Your task to perform on an android device: toggle javascript in the chrome app Image 0: 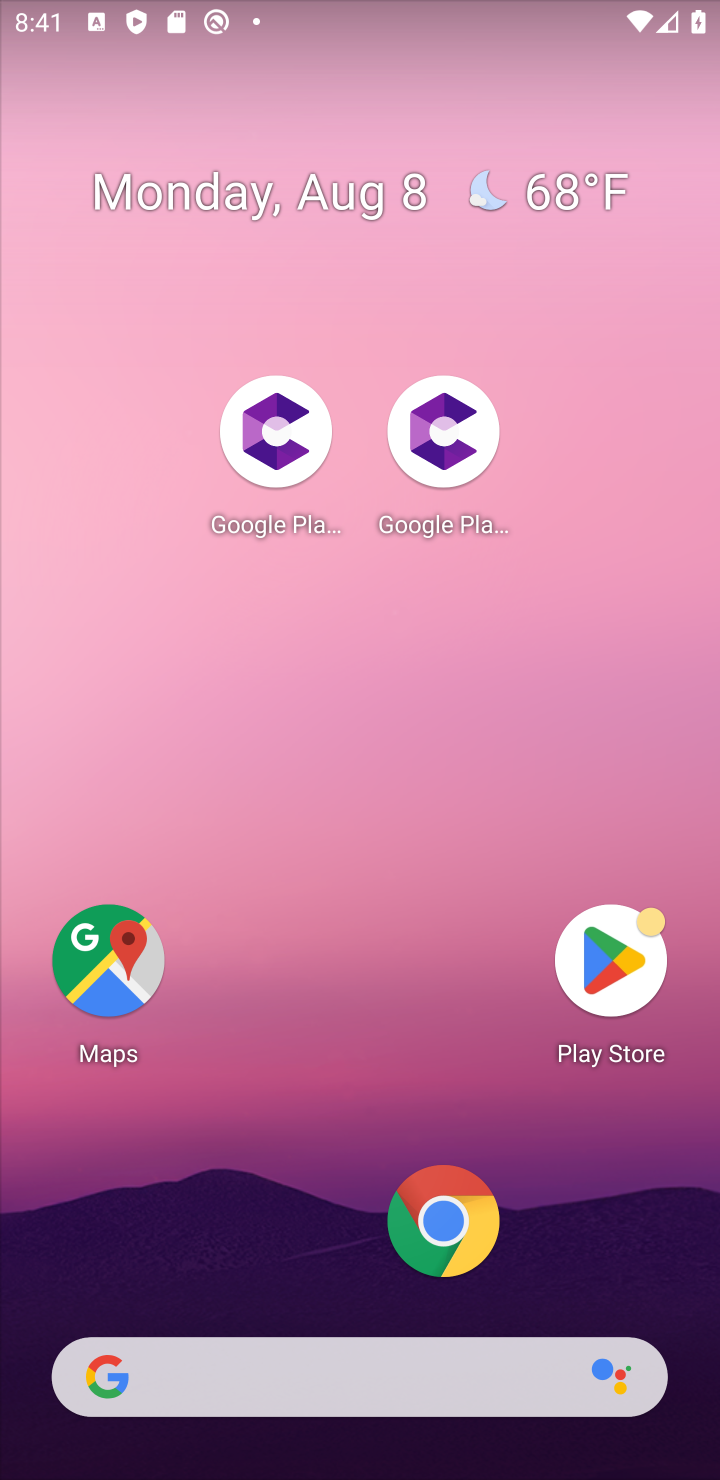
Step 0: click (400, 1249)
Your task to perform on an android device: toggle javascript in the chrome app Image 1: 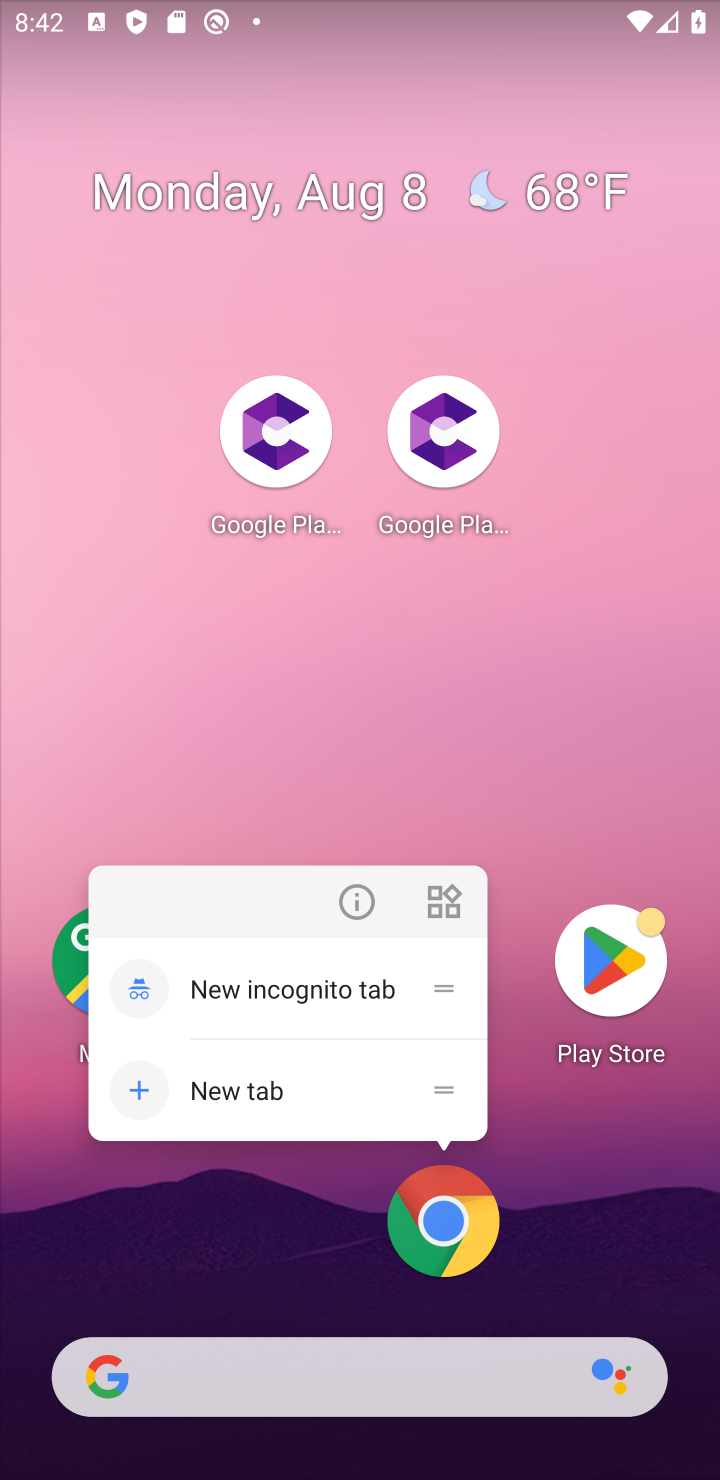
Step 1: click (464, 1225)
Your task to perform on an android device: toggle javascript in the chrome app Image 2: 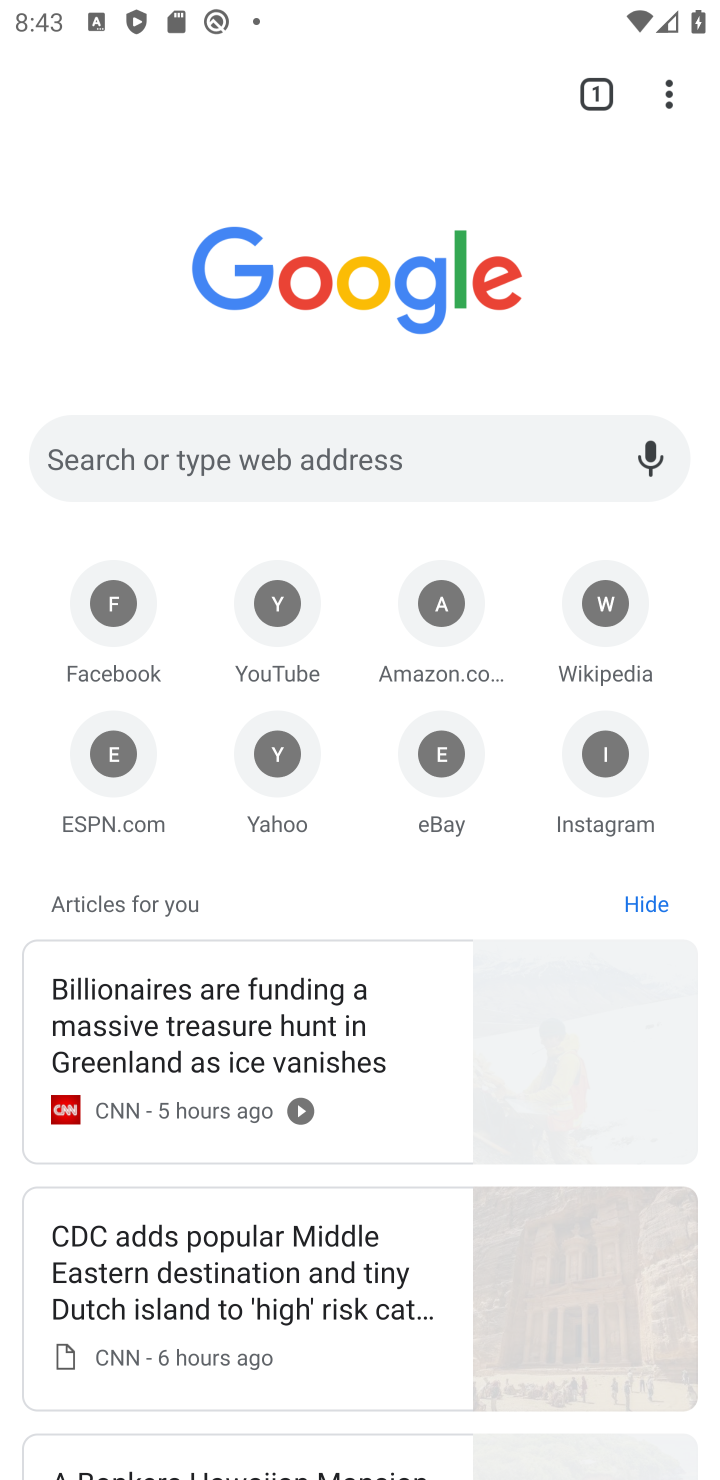
Step 2: click (678, 93)
Your task to perform on an android device: toggle javascript in the chrome app Image 3: 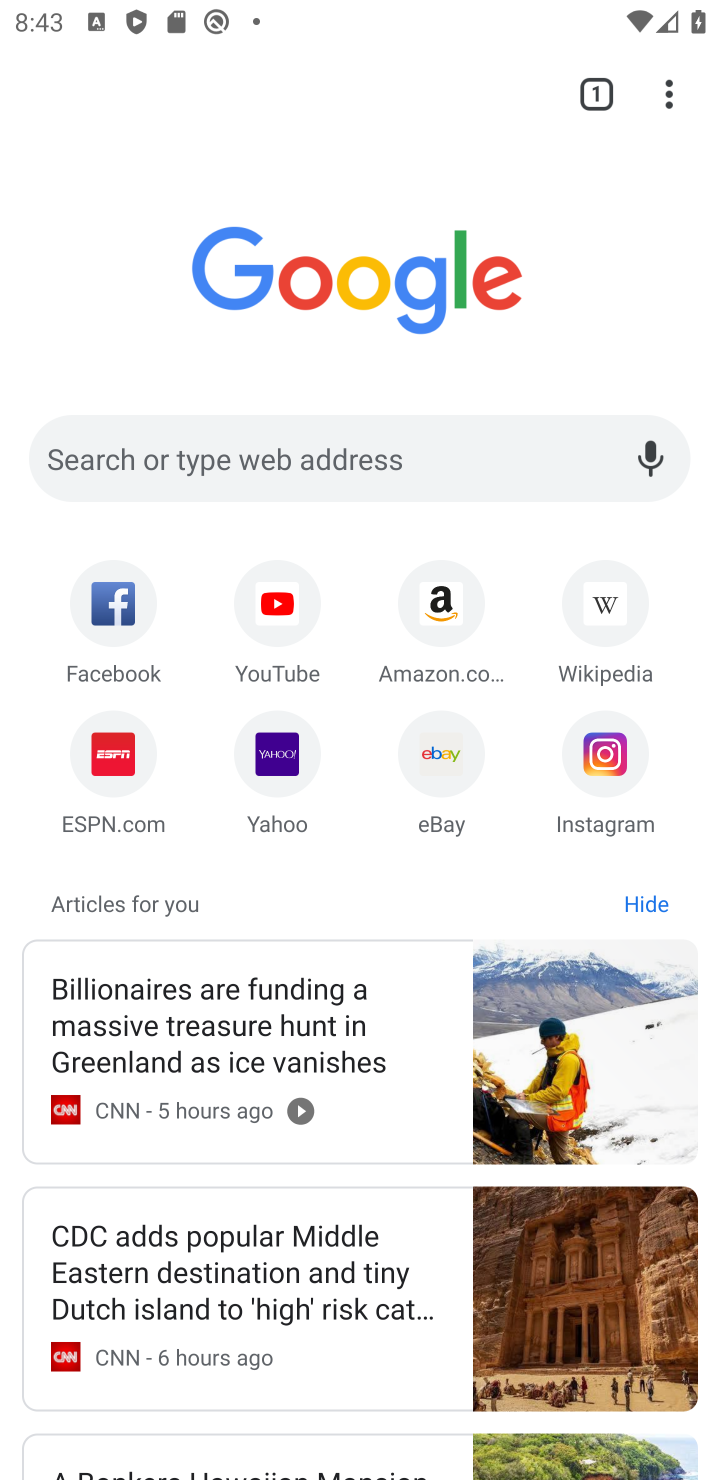
Step 3: click (678, 93)
Your task to perform on an android device: toggle javascript in the chrome app Image 4: 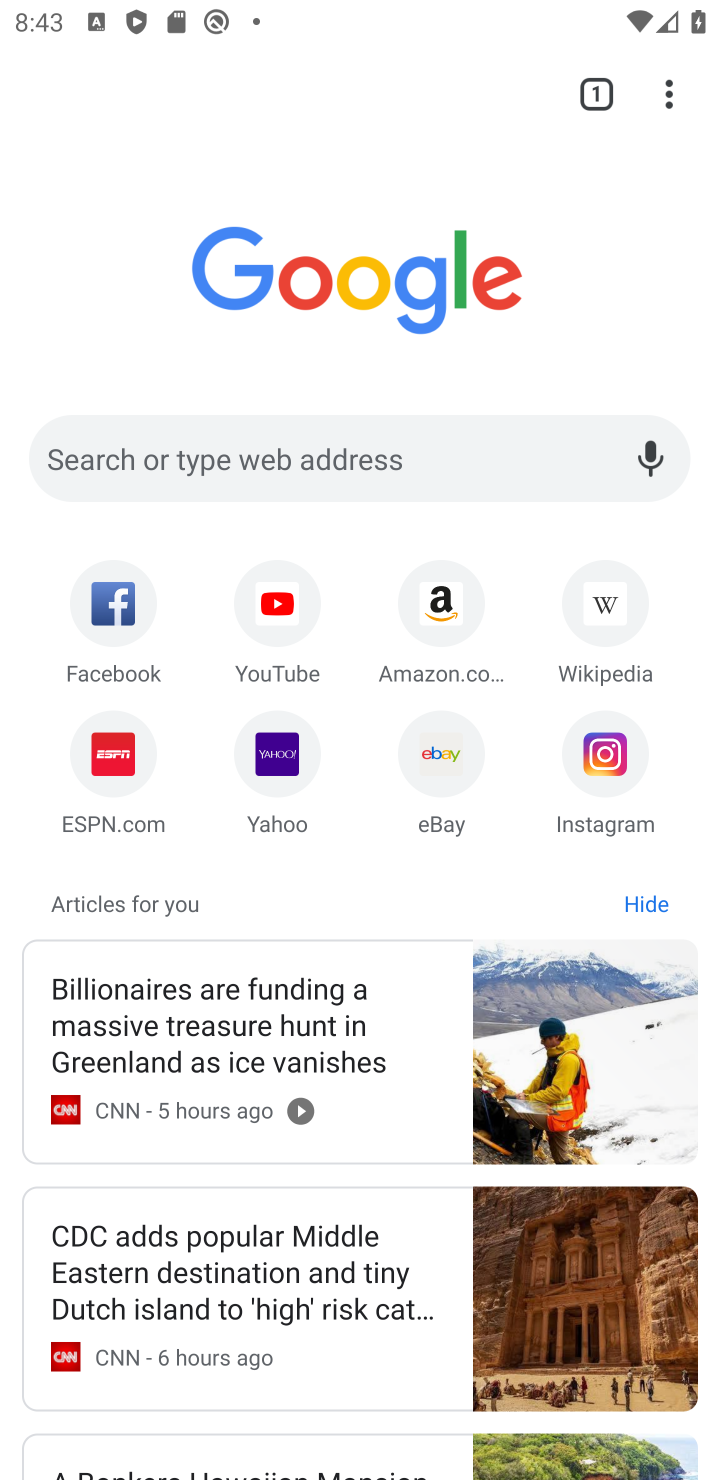
Step 4: click (678, 93)
Your task to perform on an android device: toggle javascript in the chrome app Image 5: 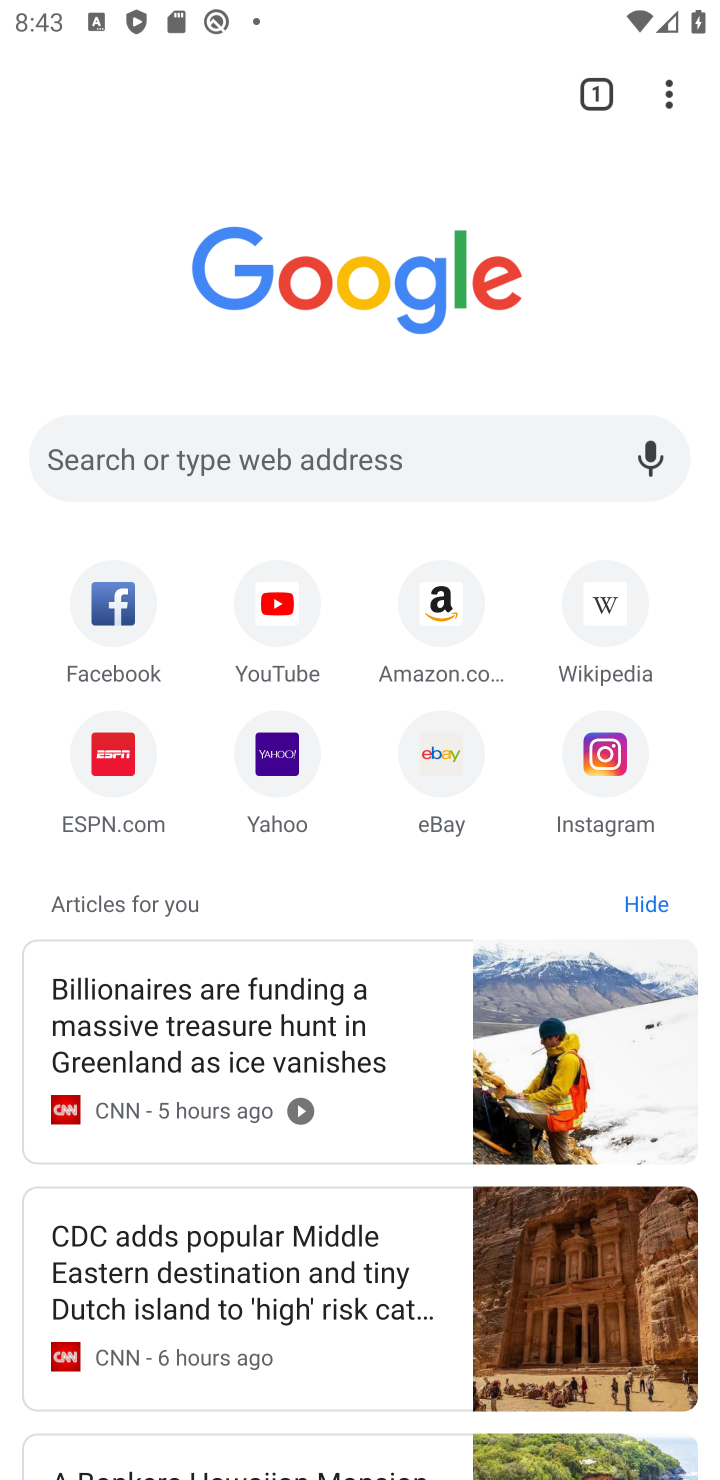
Step 5: click (678, 93)
Your task to perform on an android device: toggle javascript in the chrome app Image 6: 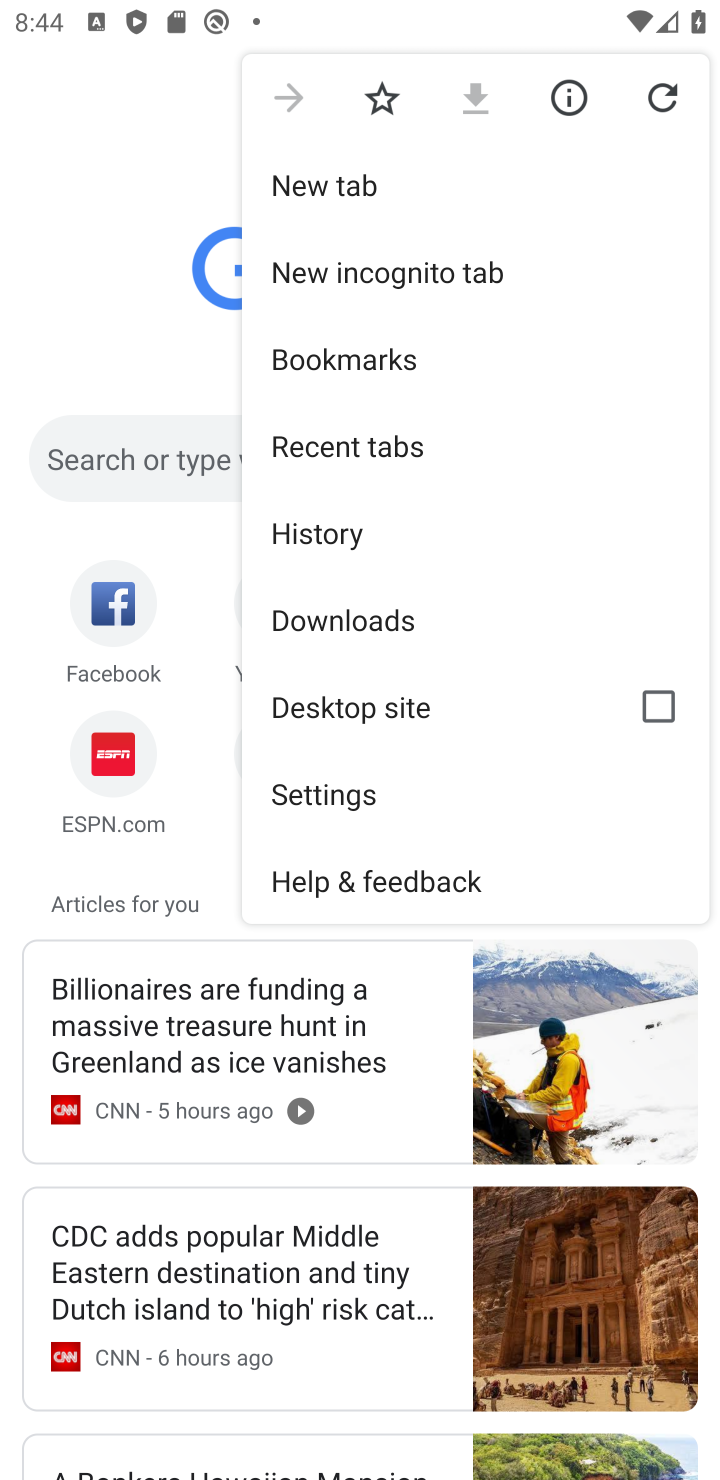
Step 6: click (408, 800)
Your task to perform on an android device: toggle javascript in the chrome app Image 7: 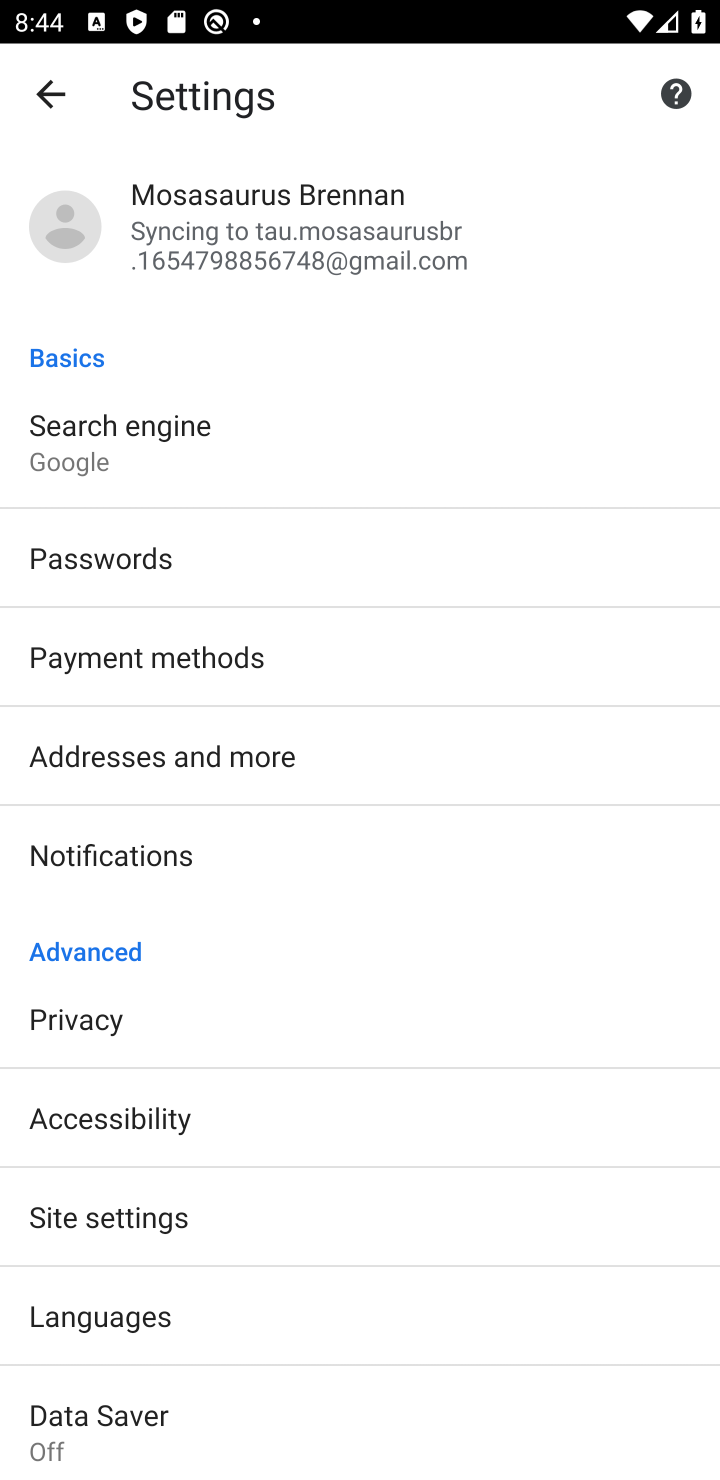
Step 7: click (158, 1192)
Your task to perform on an android device: toggle javascript in the chrome app Image 8: 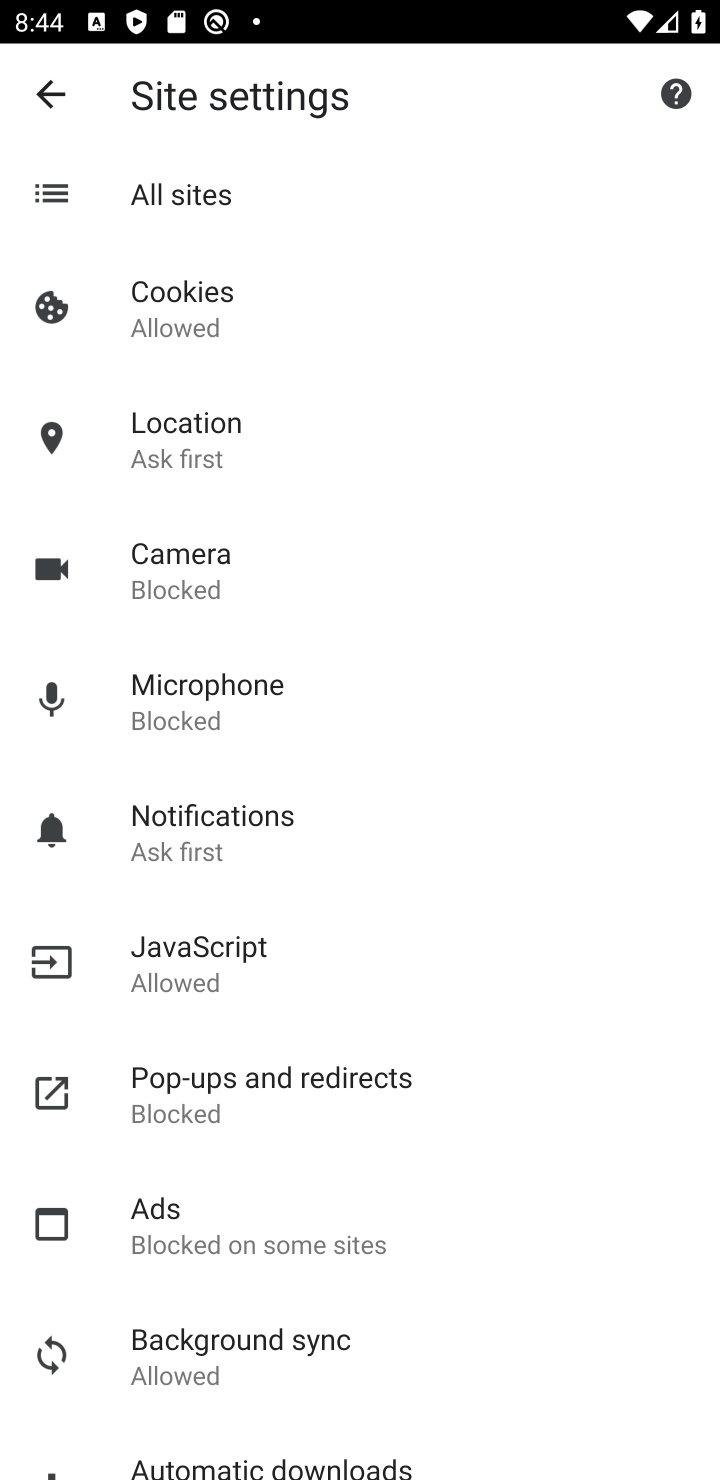
Step 8: click (210, 975)
Your task to perform on an android device: toggle javascript in the chrome app Image 9: 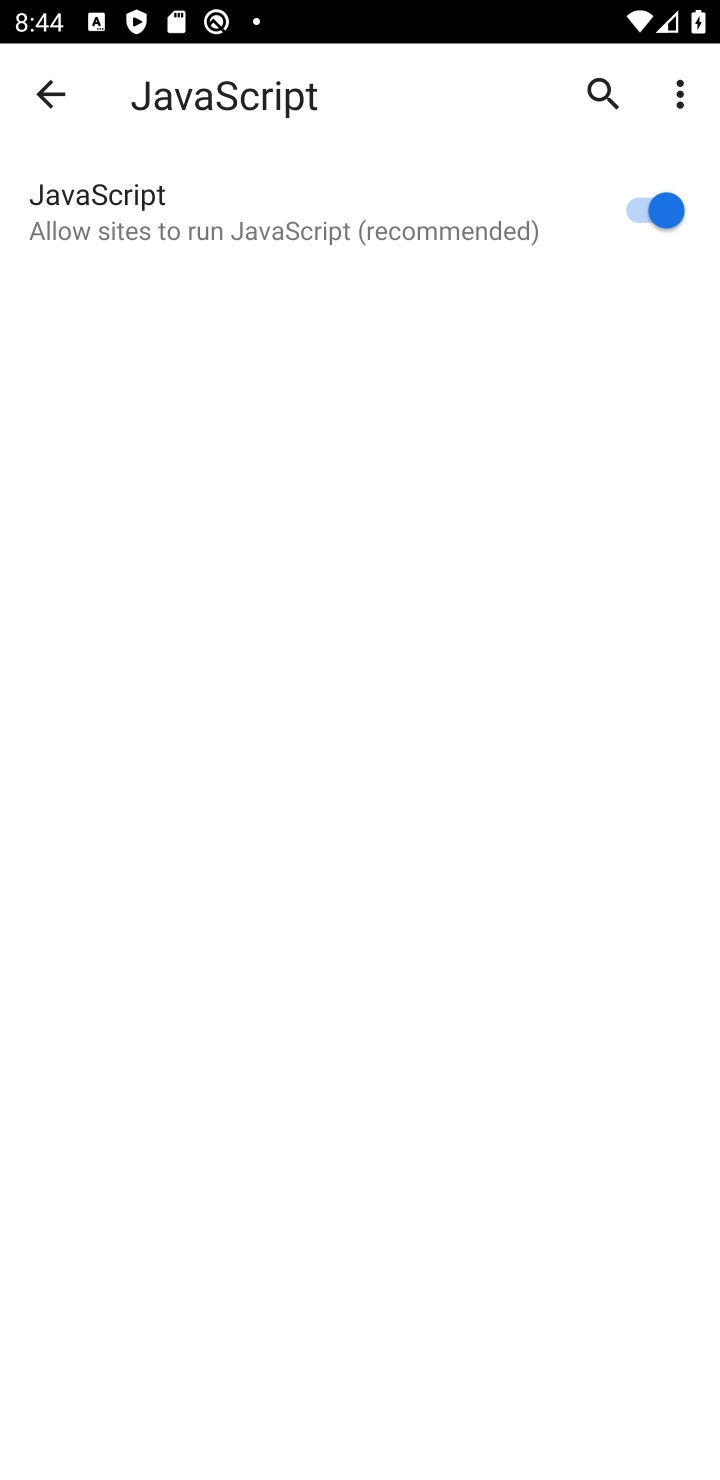
Step 9: click (628, 199)
Your task to perform on an android device: toggle javascript in the chrome app Image 10: 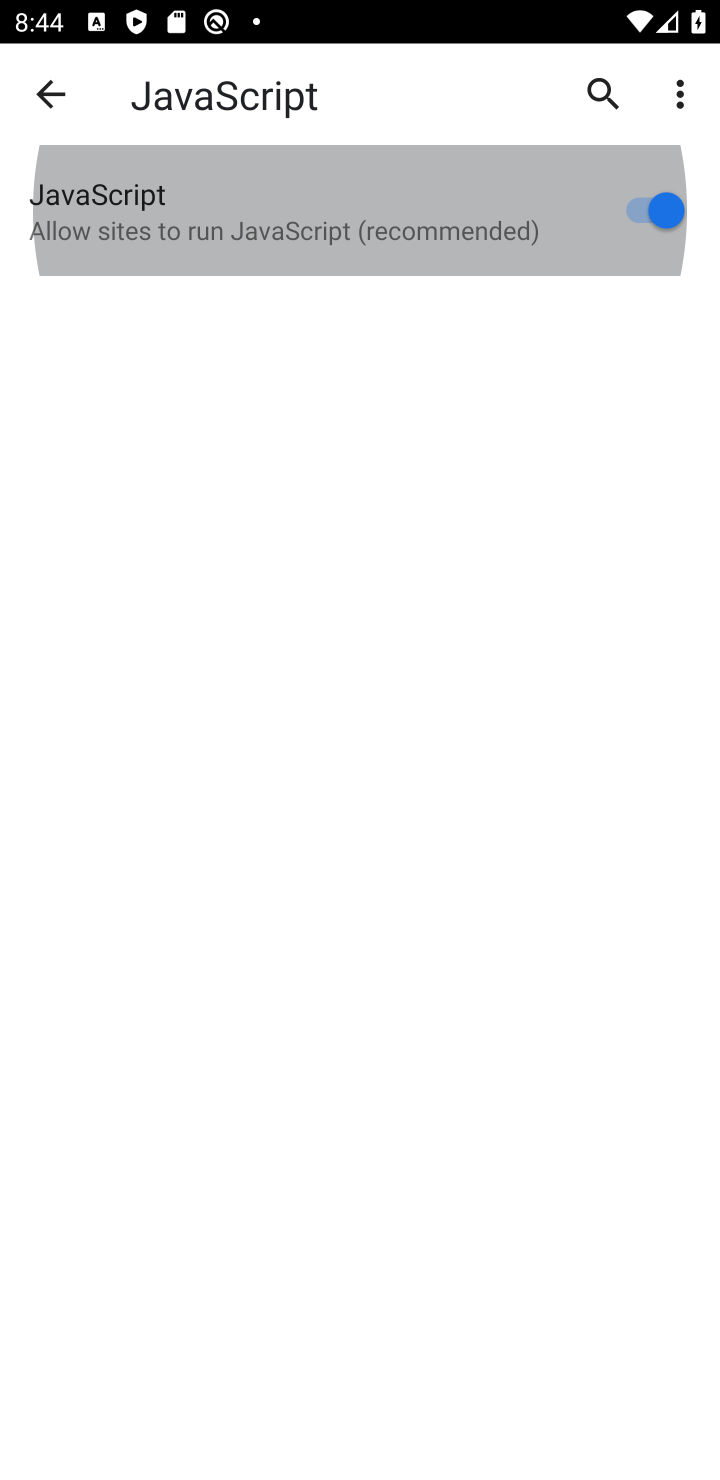
Step 10: click (628, 199)
Your task to perform on an android device: toggle javascript in the chrome app Image 11: 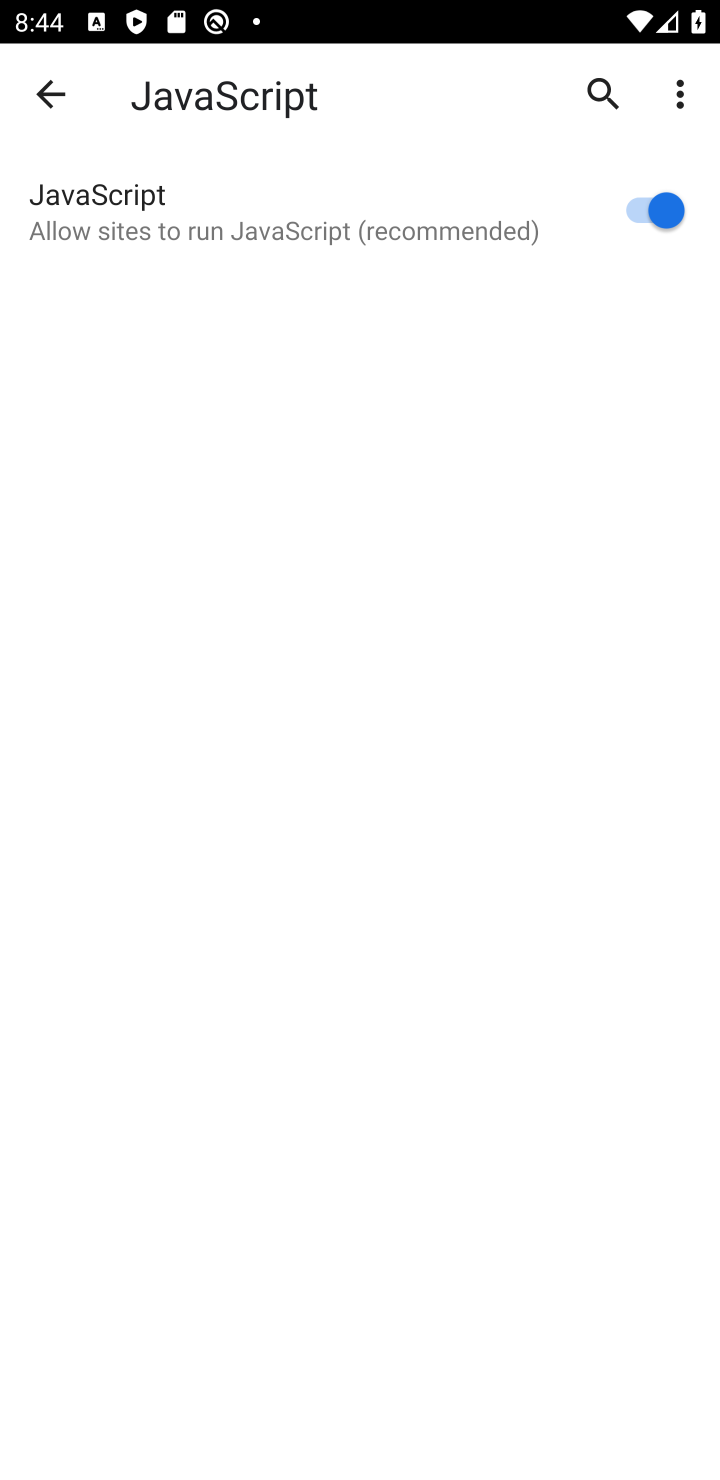
Step 11: task complete